Your task to perform on an android device: Go to settings Image 0: 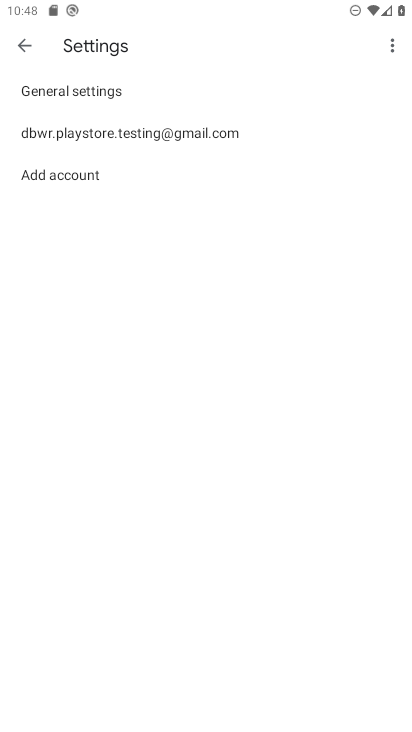
Step 0: press back button
Your task to perform on an android device: Go to settings Image 1: 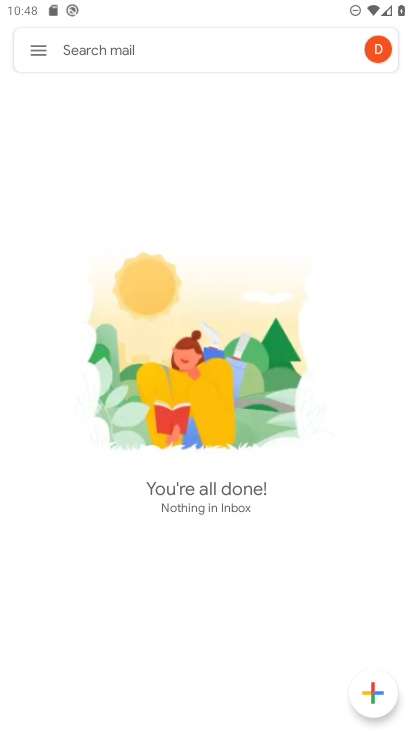
Step 1: press home button
Your task to perform on an android device: Go to settings Image 2: 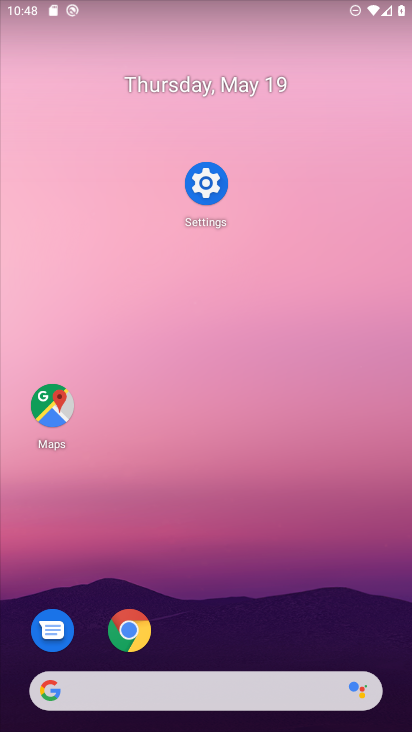
Step 2: drag from (254, 694) to (120, 57)
Your task to perform on an android device: Go to settings Image 3: 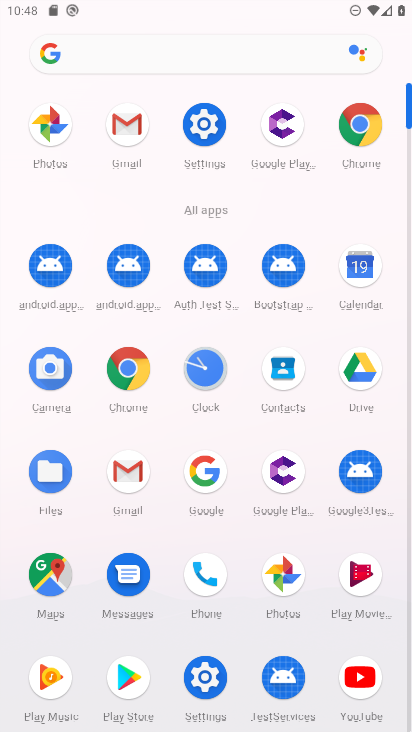
Step 3: click (219, 123)
Your task to perform on an android device: Go to settings Image 4: 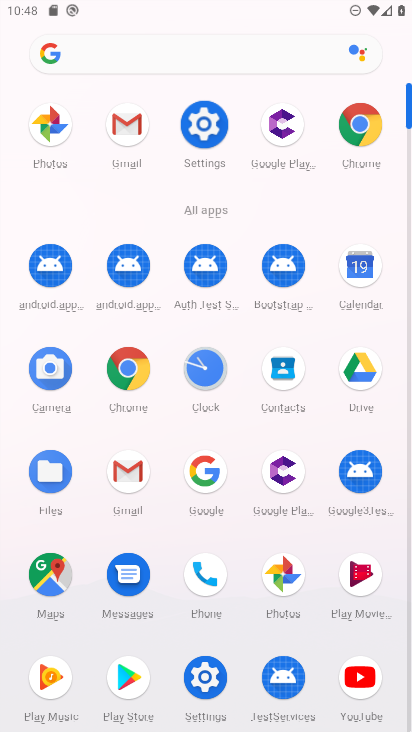
Step 4: click (203, 127)
Your task to perform on an android device: Go to settings Image 5: 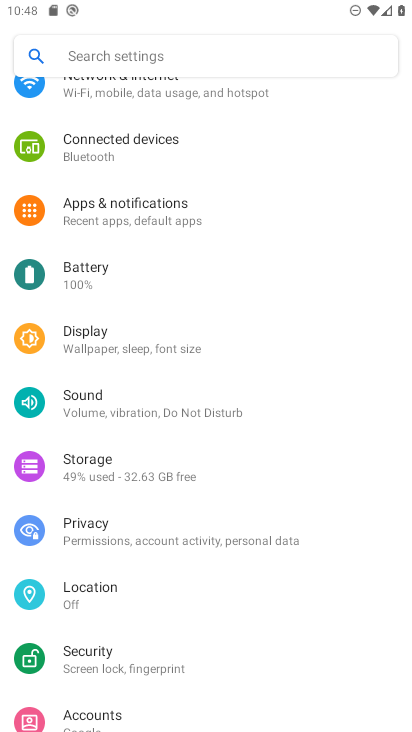
Step 5: click (202, 126)
Your task to perform on an android device: Go to settings Image 6: 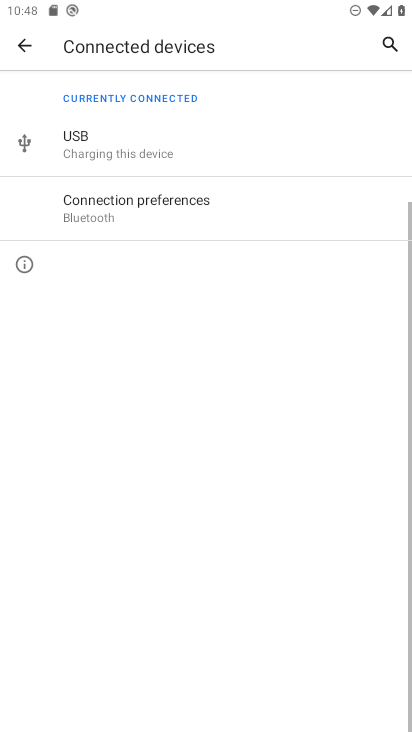
Step 6: task complete